Your task to perform on an android device: Is it going to rain today? Image 0: 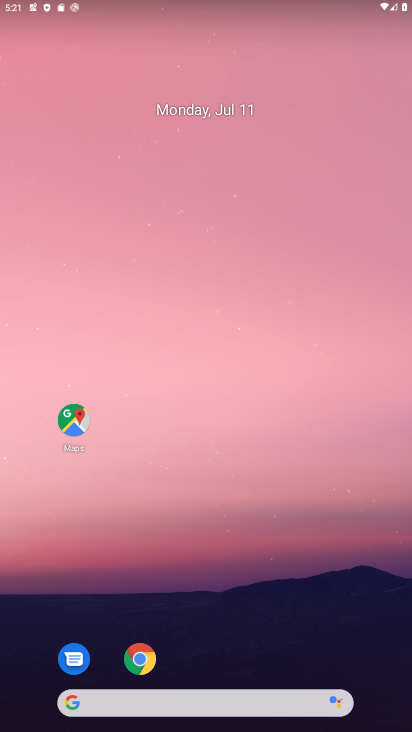
Step 0: drag from (11, 246) to (292, 257)
Your task to perform on an android device: Is it going to rain today? Image 1: 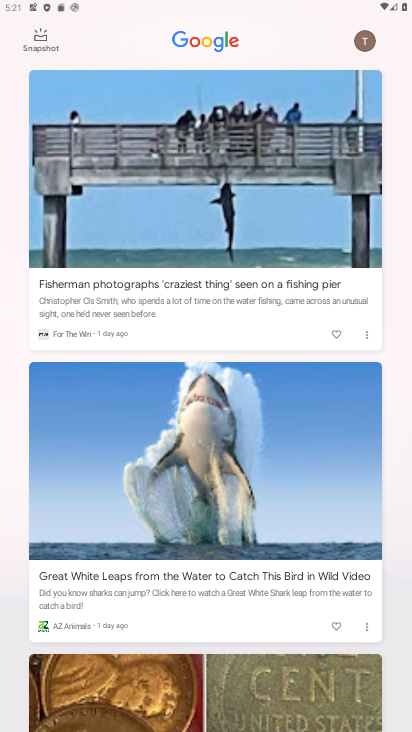
Step 1: task complete